Your task to perform on an android device: refresh tabs in the chrome app Image 0: 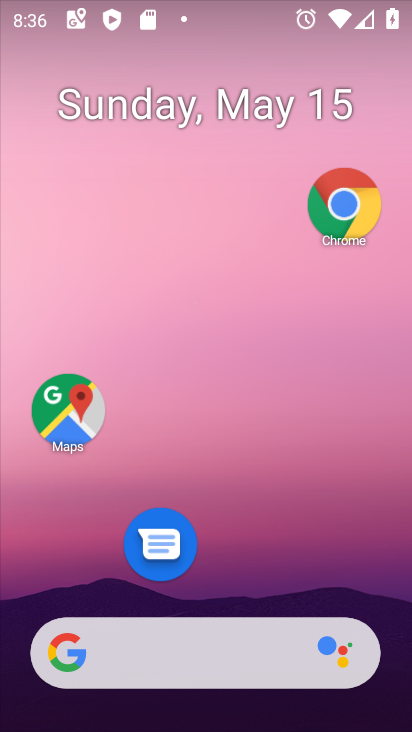
Step 0: click (337, 211)
Your task to perform on an android device: refresh tabs in the chrome app Image 1: 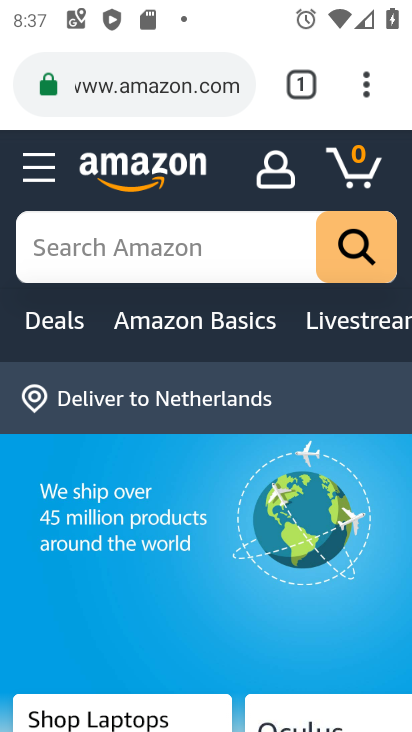
Step 1: click (370, 75)
Your task to perform on an android device: refresh tabs in the chrome app Image 2: 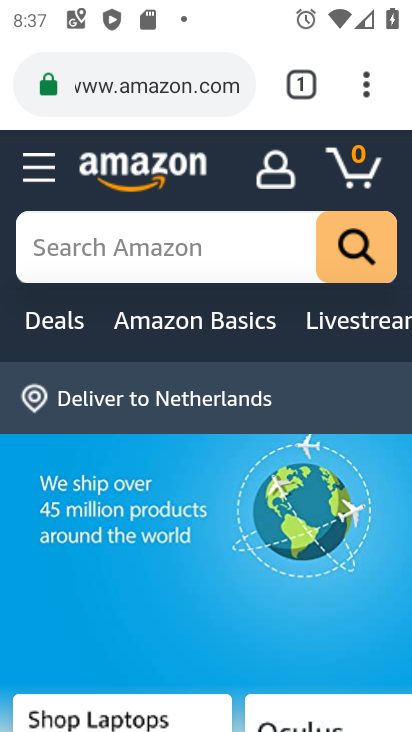
Step 2: click (370, 73)
Your task to perform on an android device: refresh tabs in the chrome app Image 3: 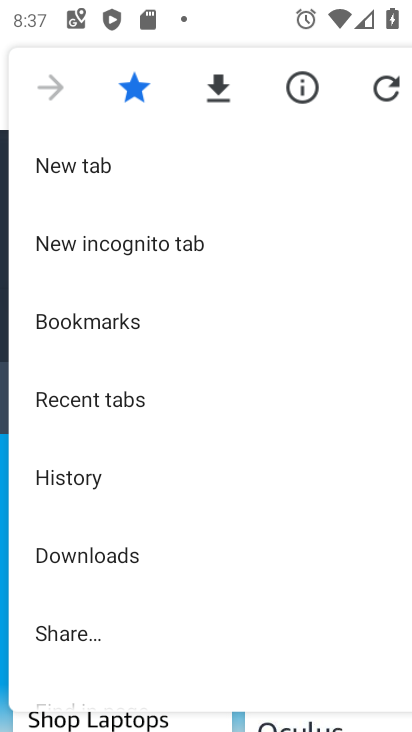
Step 3: click (377, 94)
Your task to perform on an android device: refresh tabs in the chrome app Image 4: 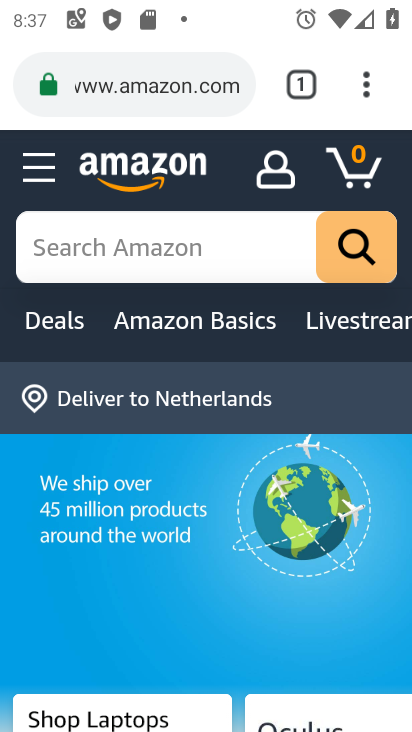
Step 4: task complete